Your task to perform on an android device: toggle airplane mode Image 0: 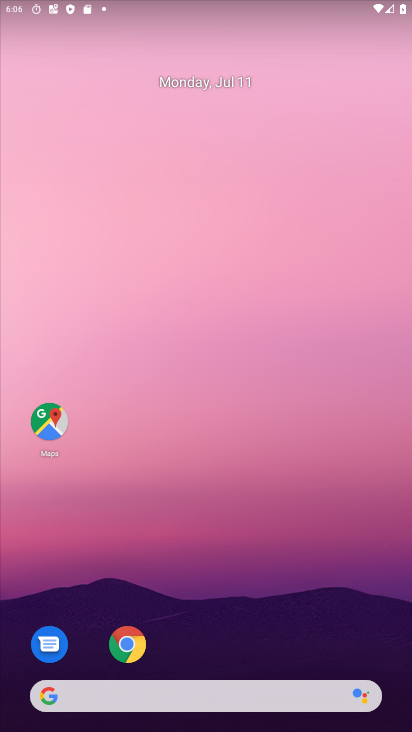
Step 0: drag from (217, 1) to (210, 730)
Your task to perform on an android device: toggle airplane mode Image 1: 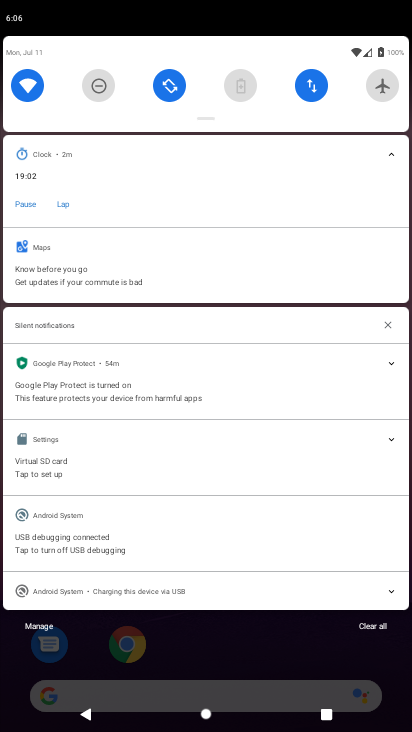
Step 1: drag from (196, 112) to (246, 721)
Your task to perform on an android device: toggle airplane mode Image 2: 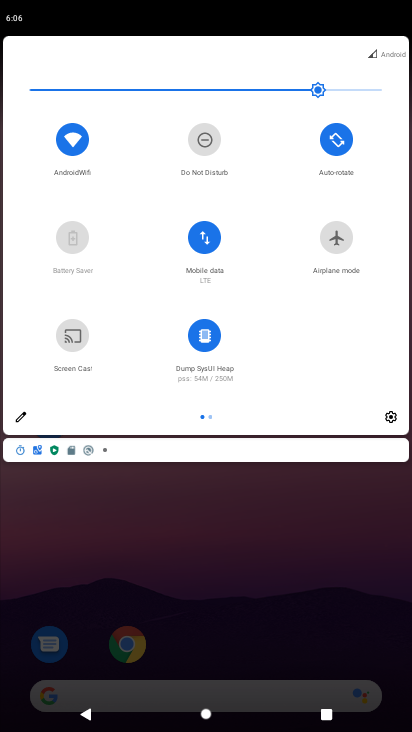
Step 2: click (330, 237)
Your task to perform on an android device: toggle airplane mode Image 3: 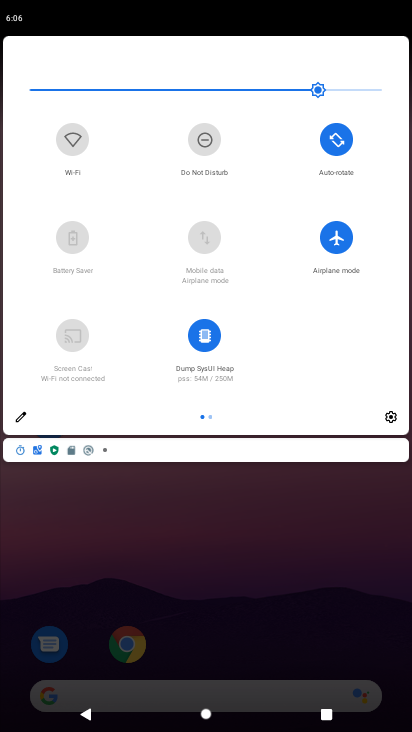
Step 3: task complete